Your task to perform on an android device: toggle improve location accuracy Image 0: 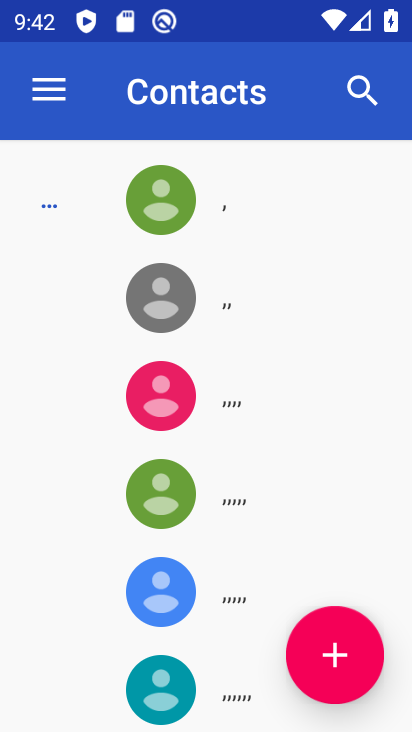
Step 0: press home button
Your task to perform on an android device: toggle improve location accuracy Image 1: 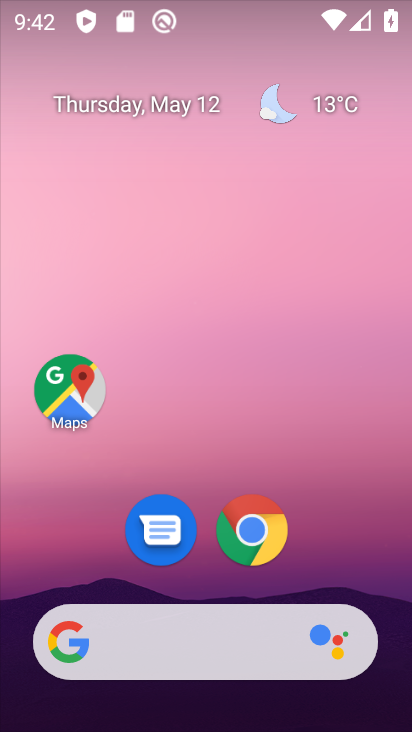
Step 1: drag from (333, 556) to (270, 153)
Your task to perform on an android device: toggle improve location accuracy Image 2: 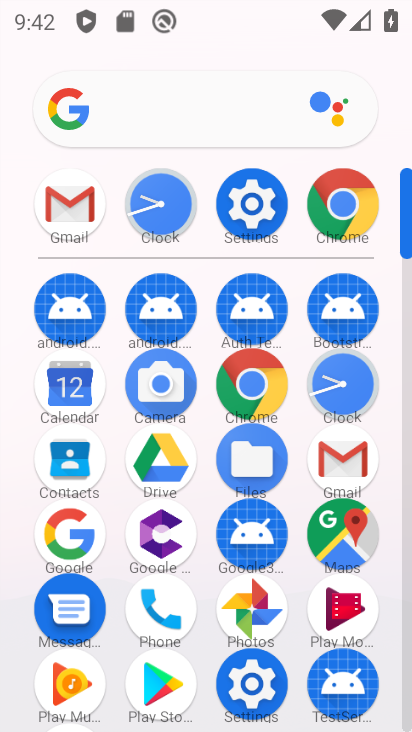
Step 2: click (260, 184)
Your task to perform on an android device: toggle improve location accuracy Image 3: 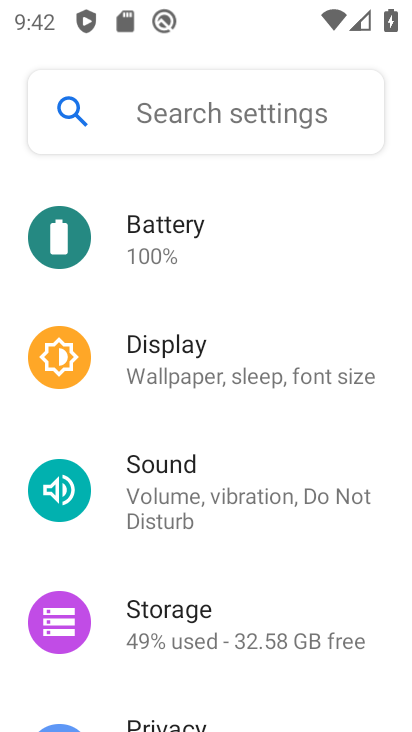
Step 3: drag from (268, 614) to (276, 252)
Your task to perform on an android device: toggle improve location accuracy Image 4: 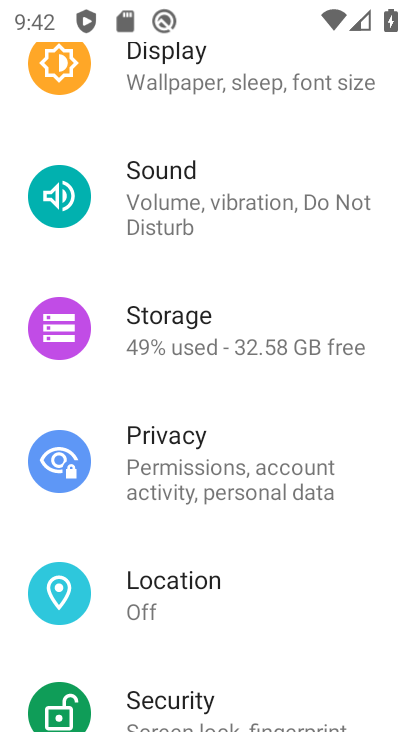
Step 4: click (215, 573)
Your task to perform on an android device: toggle improve location accuracy Image 5: 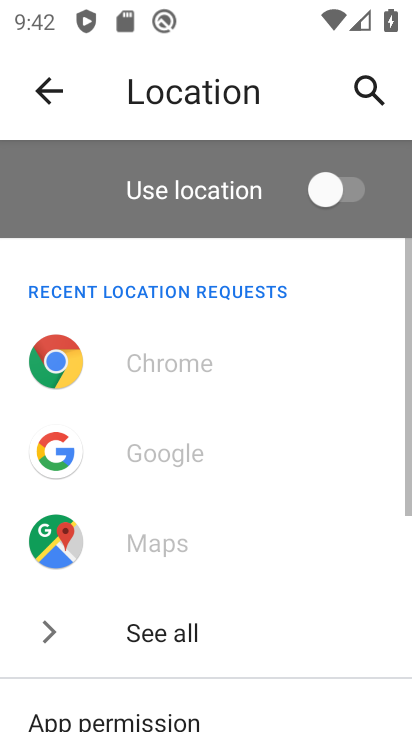
Step 5: drag from (282, 607) to (248, 279)
Your task to perform on an android device: toggle improve location accuracy Image 6: 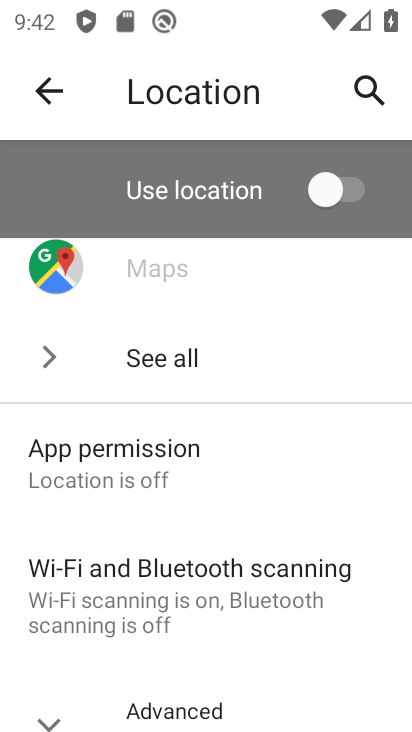
Step 6: drag from (273, 672) to (301, 398)
Your task to perform on an android device: toggle improve location accuracy Image 7: 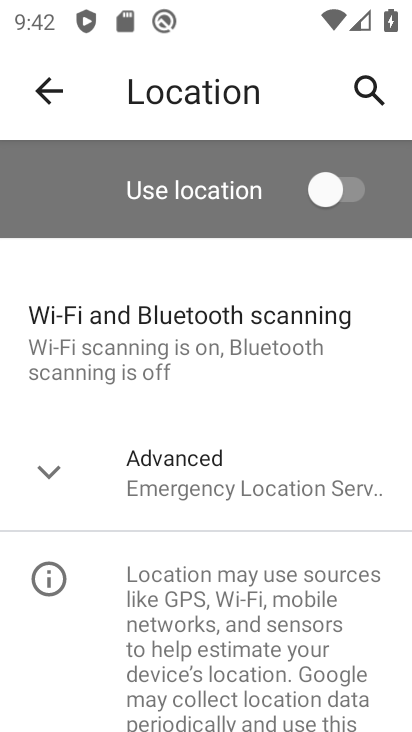
Step 7: click (237, 486)
Your task to perform on an android device: toggle improve location accuracy Image 8: 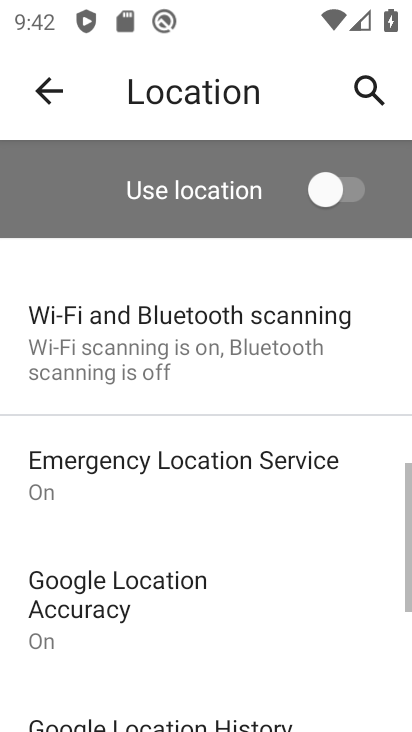
Step 8: drag from (249, 678) to (272, 519)
Your task to perform on an android device: toggle improve location accuracy Image 9: 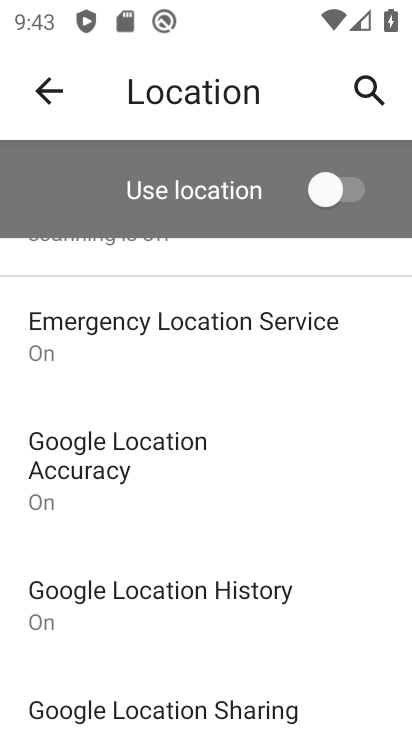
Step 9: click (92, 475)
Your task to perform on an android device: toggle improve location accuracy Image 10: 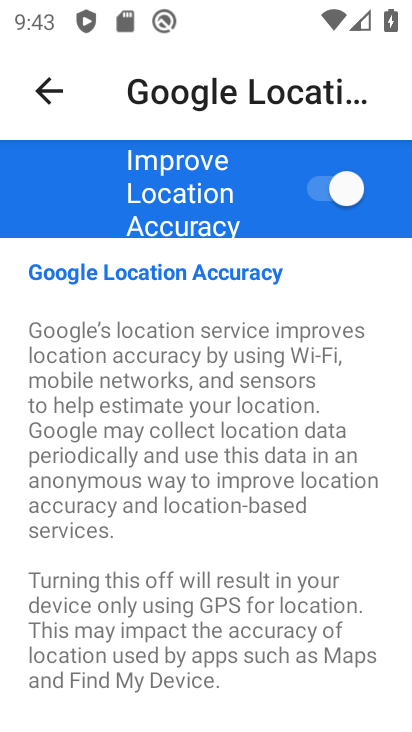
Step 10: click (324, 182)
Your task to perform on an android device: toggle improve location accuracy Image 11: 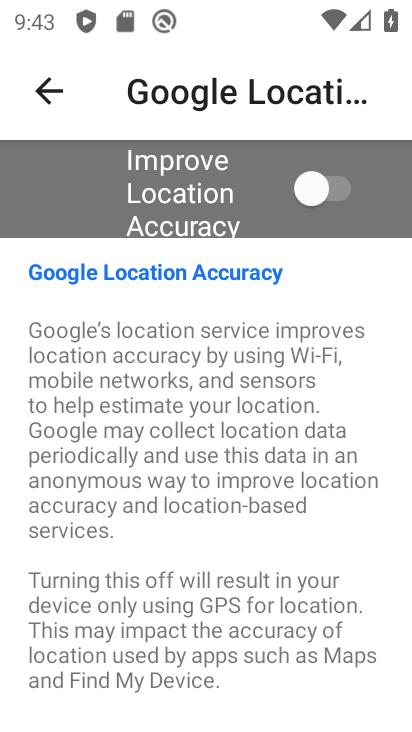
Step 11: task complete